Your task to perform on an android device: turn on priority inbox in the gmail app Image 0: 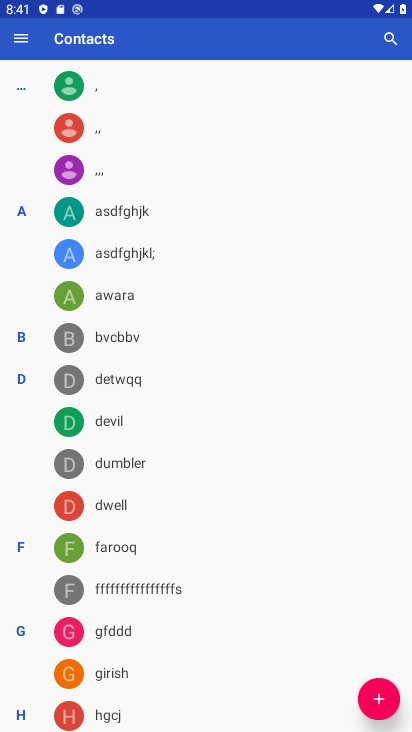
Step 0: press home button
Your task to perform on an android device: turn on priority inbox in the gmail app Image 1: 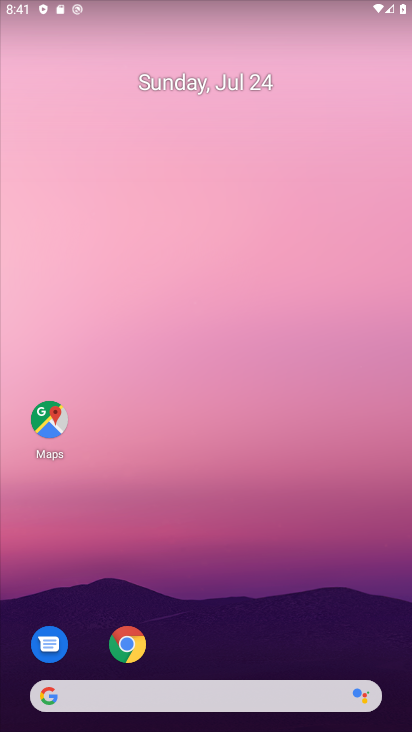
Step 1: drag from (191, 685) to (235, 369)
Your task to perform on an android device: turn on priority inbox in the gmail app Image 2: 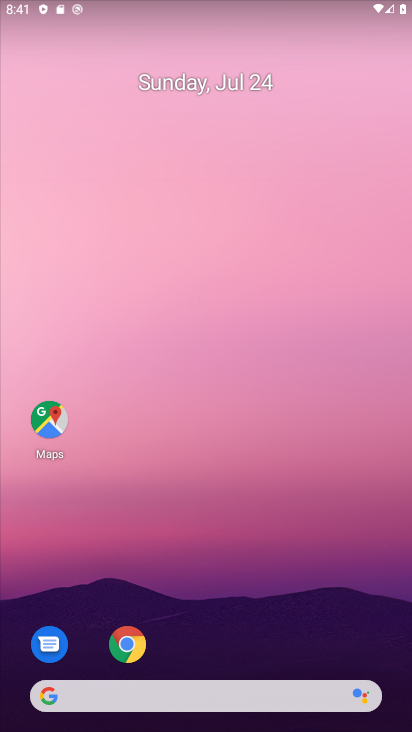
Step 2: drag from (233, 668) to (338, 93)
Your task to perform on an android device: turn on priority inbox in the gmail app Image 3: 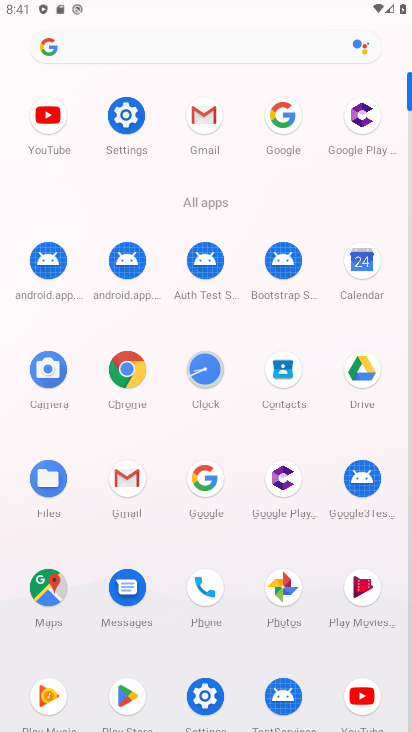
Step 3: click (208, 111)
Your task to perform on an android device: turn on priority inbox in the gmail app Image 4: 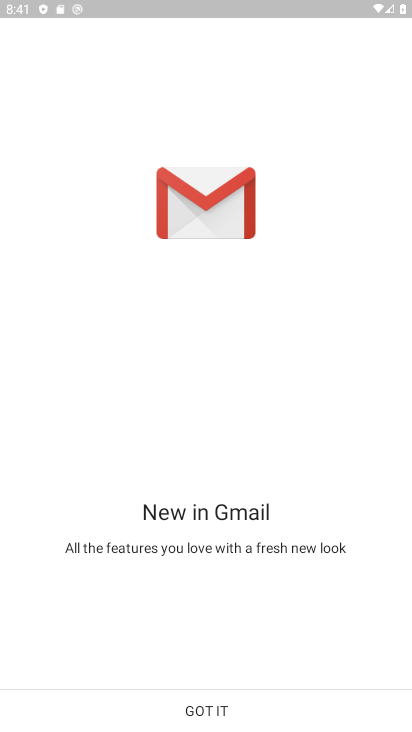
Step 4: click (205, 710)
Your task to perform on an android device: turn on priority inbox in the gmail app Image 5: 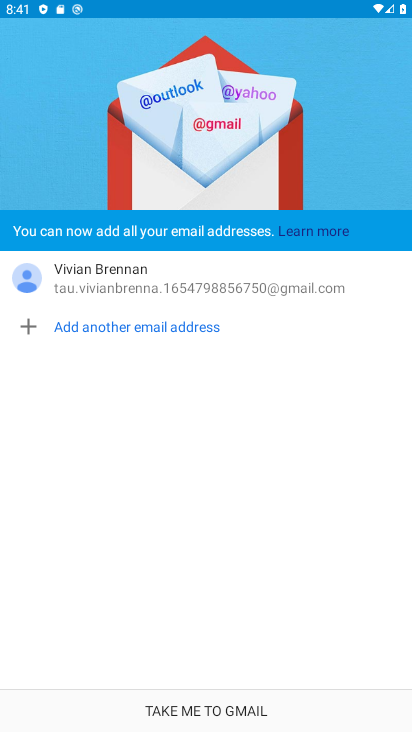
Step 5: click (205, 710)
Your task to perform on an android device: turn on priority inbox in the gmail app Image 6: 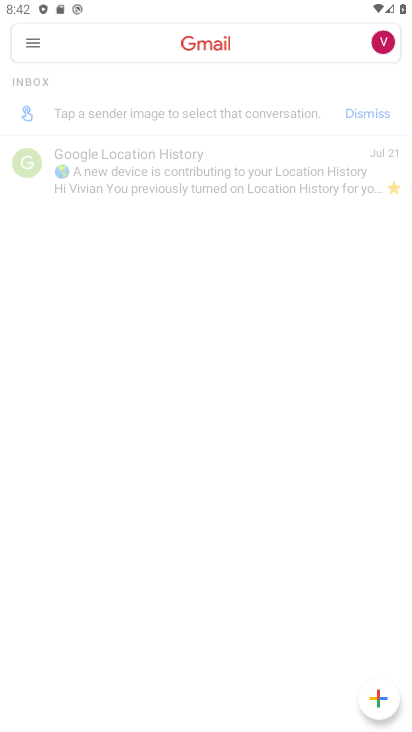
Step 6: click (30, 36)
Your task to perform on an android device: turn on priority inbox in the gmail app Image 7: 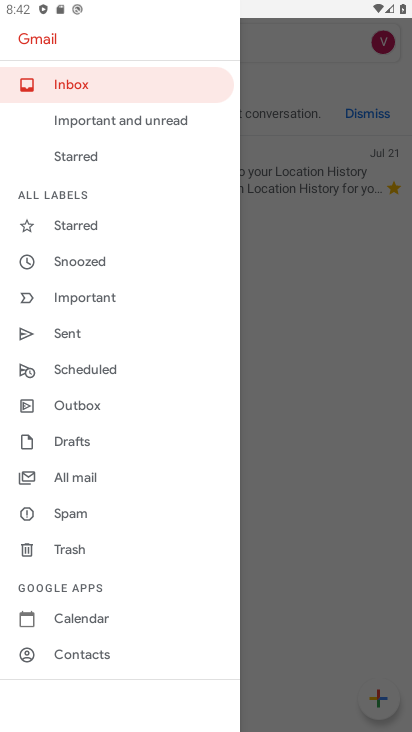
Step 7: drag from (102, 637) to (102, 321)
Your task to perform on an android device: turn on priority inbox in the gmail app Image 8: 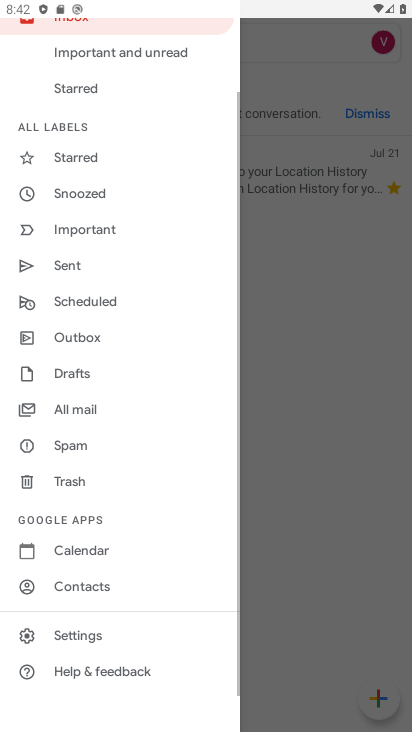
Step 8: click (69, 642)
Your task to perform on an android device: turn on priority inbox in the gmail app Image 9: 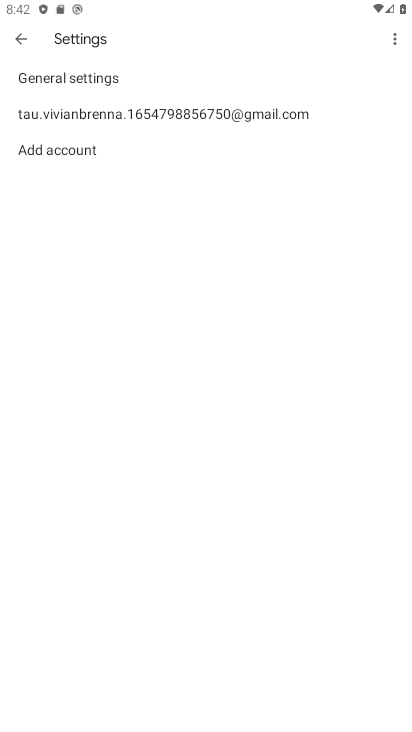
Step 9: click (82, 110)
Your task to perform on an android device: turn on priority inbox in the gmail app Image 10: 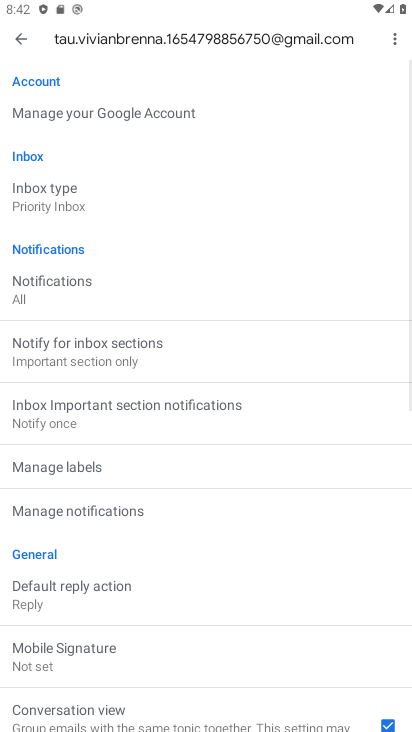
Step 10: click (52, 202)
Your task to perform on an android device: turn on priority inbox in the gmail app Image 11: 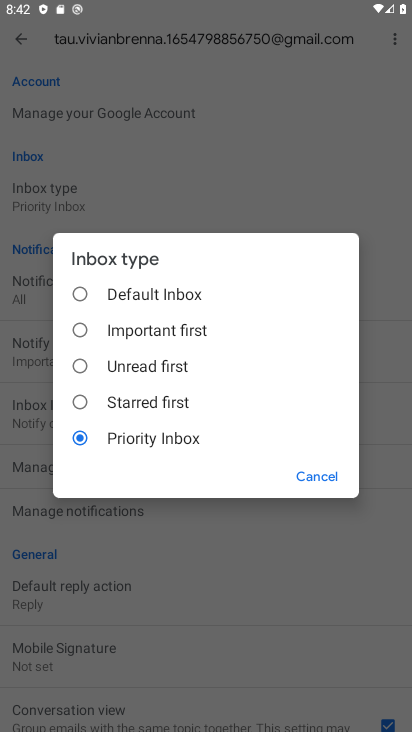
Step 11: click (323, 470)
Your task to perform on an android device: turn on priority inbox in the gmail app Image 12: 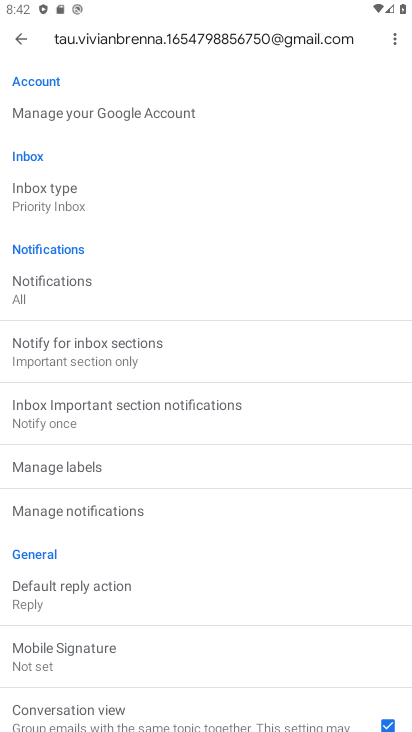
Step 12: task complete